Your task to perform on an android device: turn on the 24-hour format for clock Image 0: 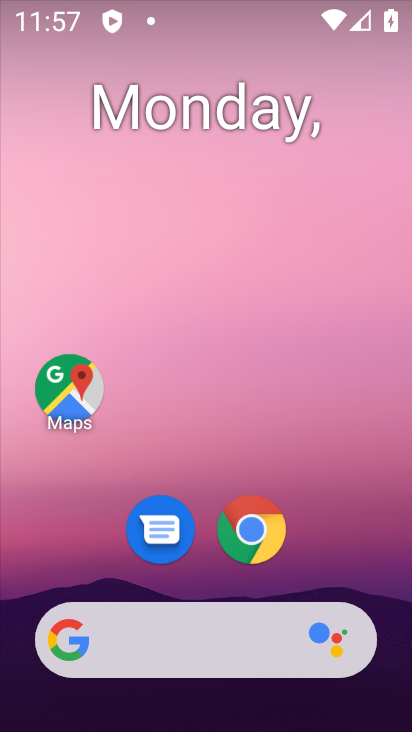
Step 0: press home button
Your task to perform on an android device: turn on the 24-hour format for clock Image 1: 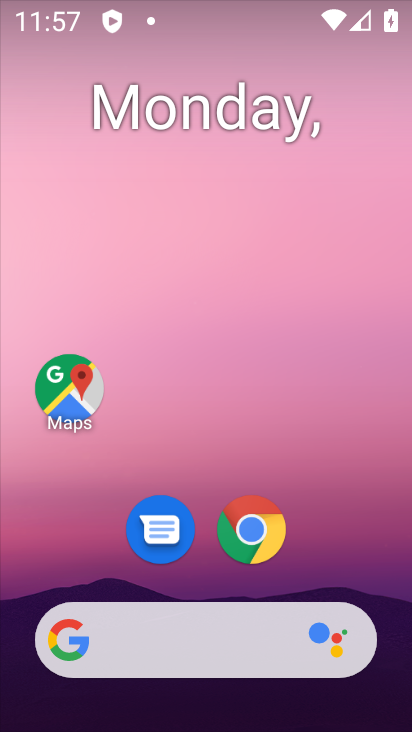
Step 1: drag from (349, 497) to (306, 23)
Your task to perform on an android device: turn on the 24-hour format for clock Image 2: 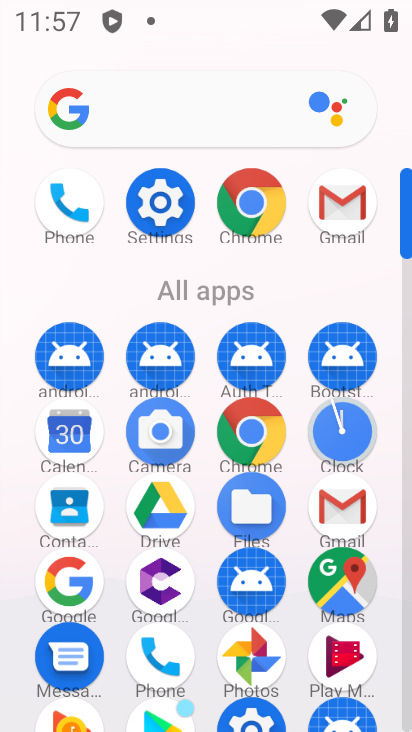
Step 2: click (361, 424)
Your task to perform on an android device: turn on the 24-hour format for clock Image 3: 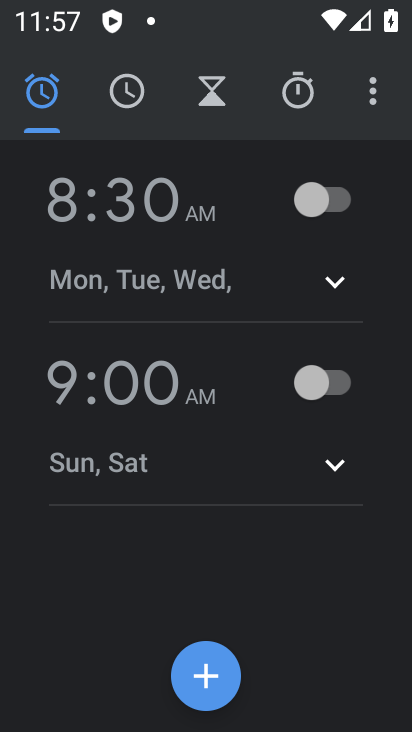
Step 3: click (359, 79)
Your task to perform on an android device: turn on the 24-hour format for clock Image 4: 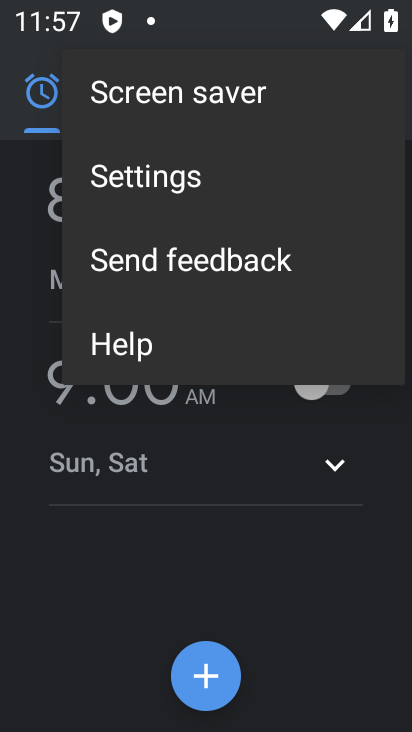
Step 4: click (234, 186)
Your task to perform on an android device: turn on the 24-hour format for clock Image 5: 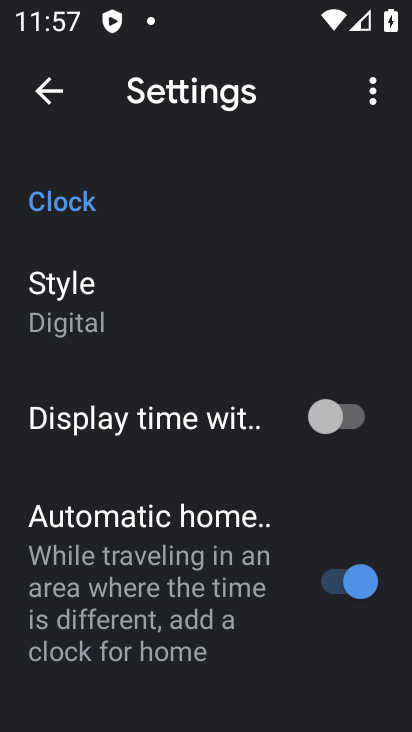
Step 5: drag from (225, 563) to (170, 309)
Your task to perform on an android device: turn on the 24-hour format for clock Image 6: 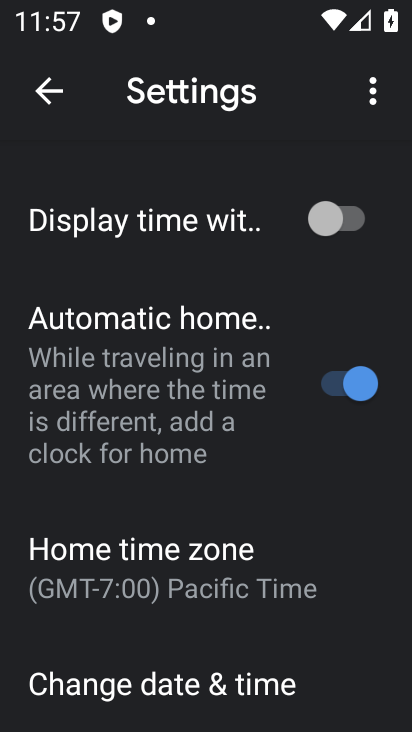
Step 6: drag from (249, 619) to (196, 258)
Your task to perform on an android device: turn on the 24-hour format for clock Image 7: 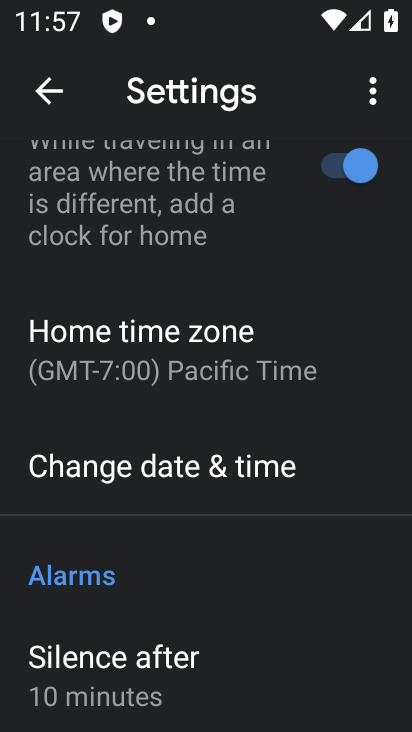
Step 7: drag from (228, 530) to (207, 424)
Your task to perform on an android device: turn on the 24-hour format for clock Image 8: 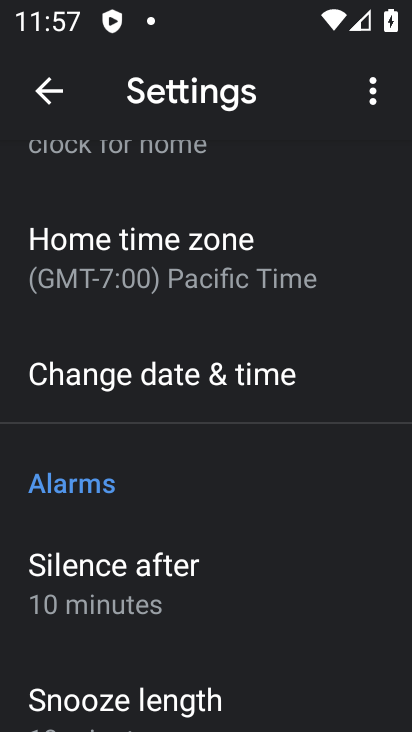
Step 8: click (200, 388)
Your task to perform on an android device: turn on the 24-hour format for clock Image 9: 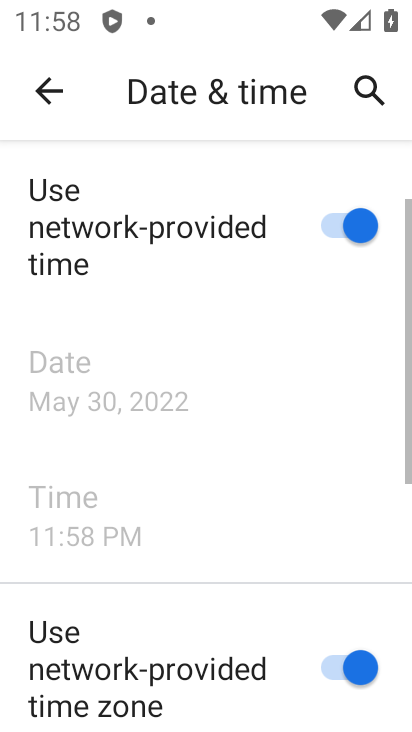
Step 9: drag from (232, 633) to (211, 248)
Your task to perform on an android device: turn on the 24-hour format for clock Image 10: 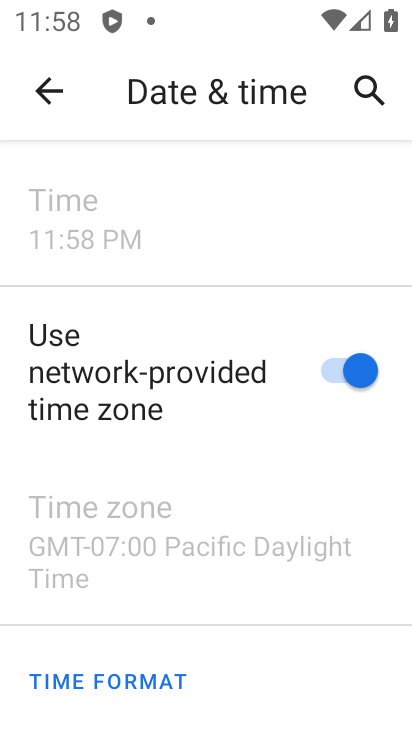
Step 10: drag from (305, 585) to (241, 234)
Your task to perform on an android device: turn on the 24-hour format for clock Image 11: 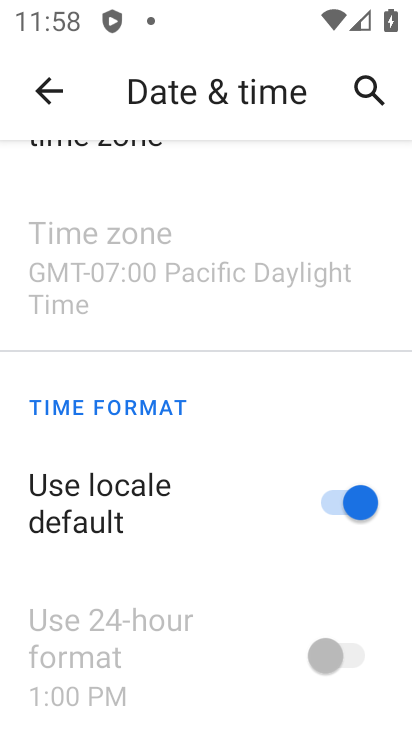
Step 11: click (283, 527)
Your task to perform on an android device: turn on the 24-hour format for clock Image 12: 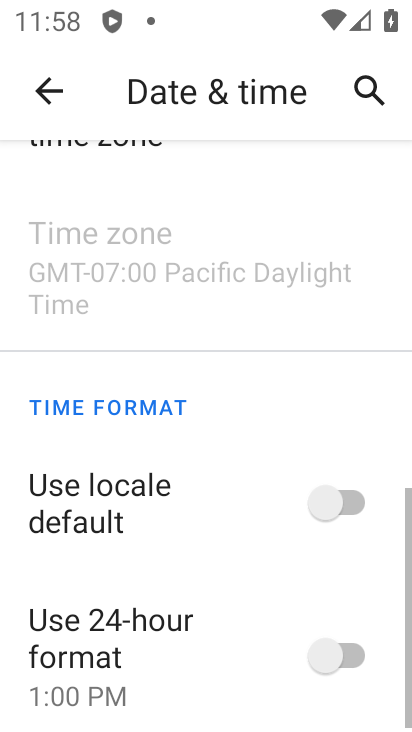
Step 12: click (262, 658)
Your task to perform on an android device: turn on the 24-hour format for clock Image 13: 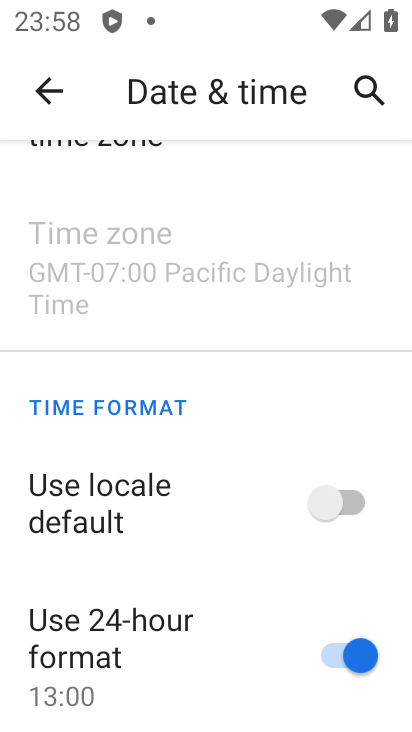
Step 13: task complete